Your task to perform on an android device: delete browsing data in the chrome app Image 0: 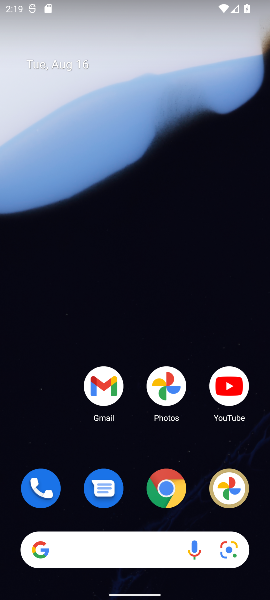
Step 0: click (162, 488)
Your task to perform on an android device: delete browsing data in the chrome app Image 1: 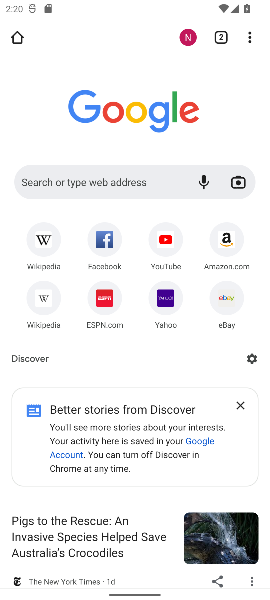
Step 1: task complete